Your task to perform on an android device: Find coffee shops on Maps Image 0: 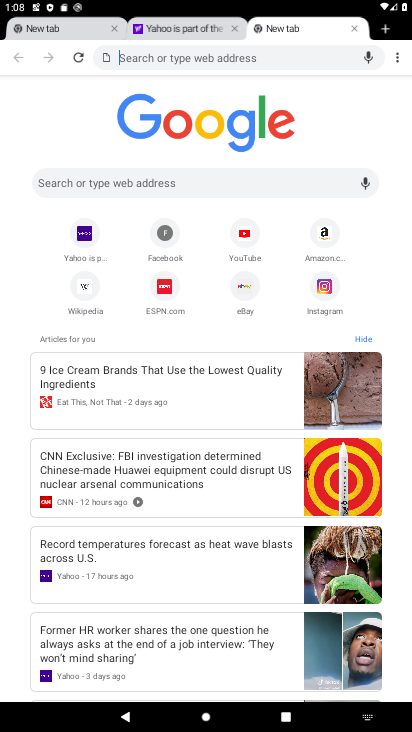
Step 0: press back button
Your task to perform on an android device: Find coffee shops on Maps Image 1: 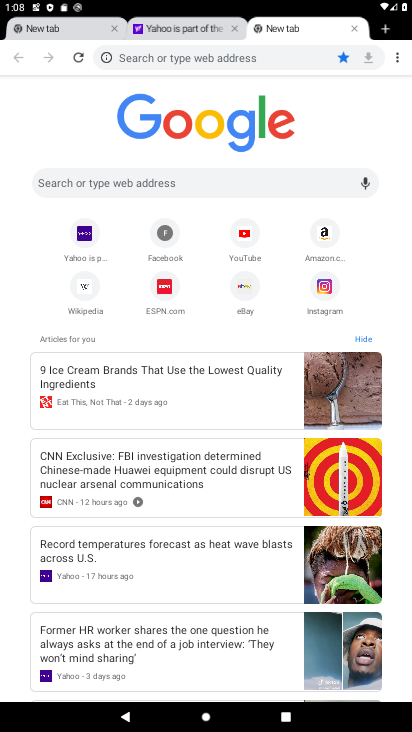
Step 1: press back button
Your task to perform on an android device: Find coffee shops on Maps Image 2: 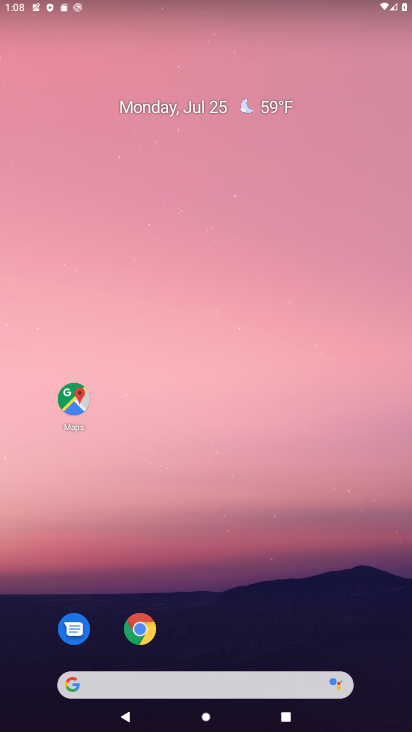
Step 2: click (70, 382)
Your task to perform on an android device: Find coffee shops on Maps Image 3: 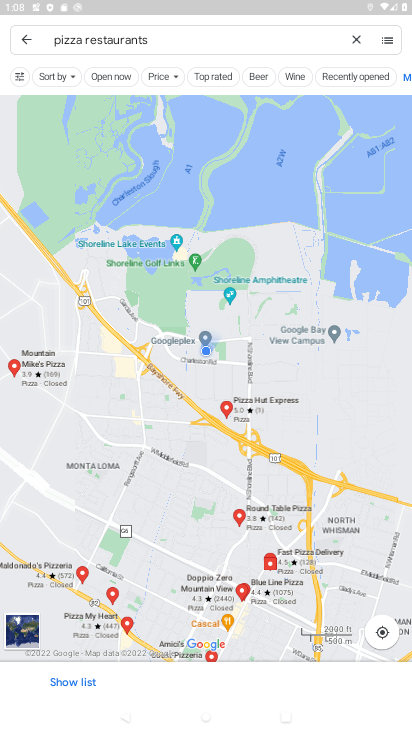
Step 3: click (361, 41)
Your task to perform on an android device: Find coffee shops on Maps Image 4: 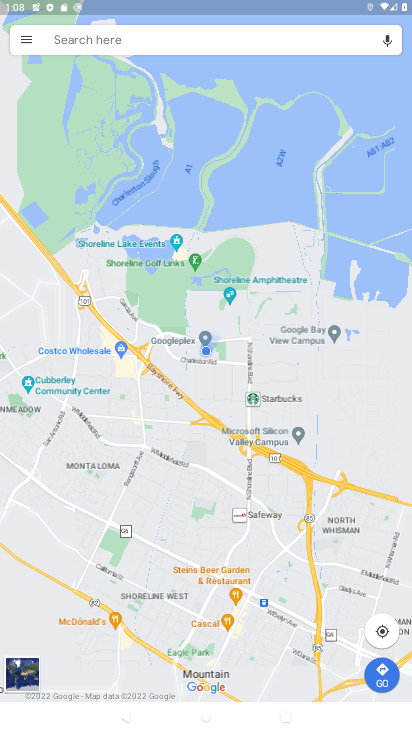
Step 4: click (199, 36)
Your task to perform on an android device: Find coffee shops on Maps Image 5: 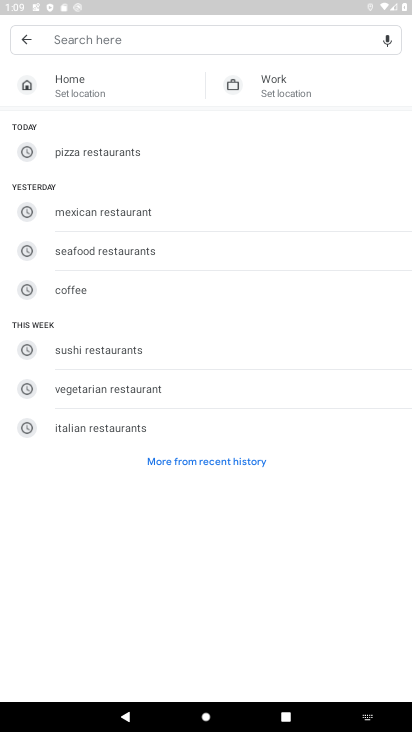
Step 5: type "coffee shops"
Your task to perform on an android device: Find coffee shops on Maps Image 6: 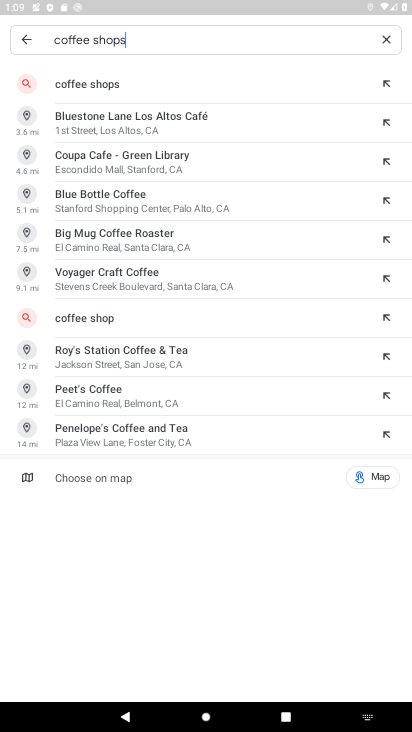
Step 6: click (169, 83)
Your task to perform on an android device: Find coffee shops on Maps Image 7: 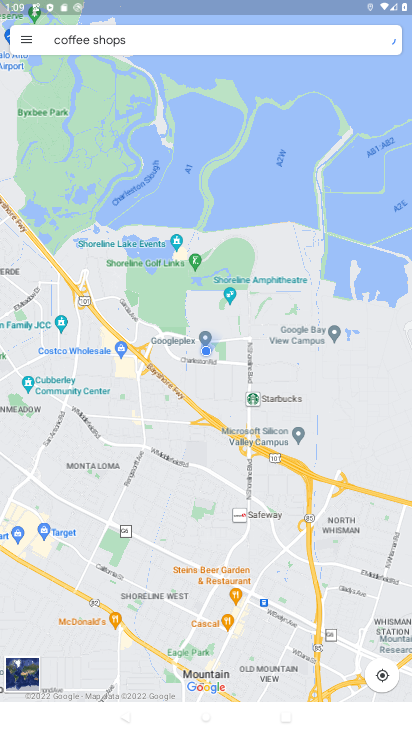
Step 7: task complete